Your task to perform on an android device: toggle notification dots Image 0: 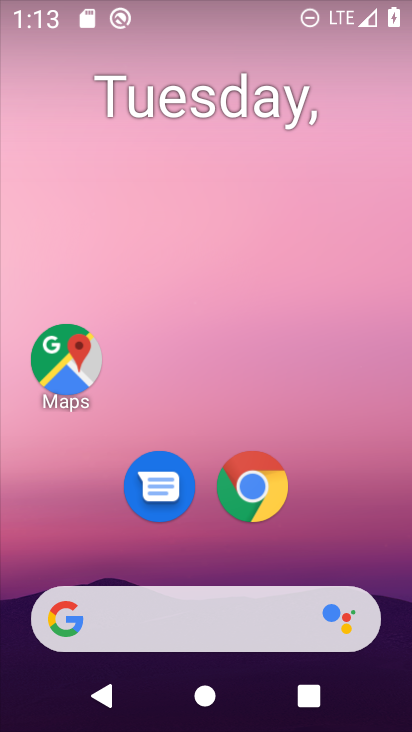
Step 0: drag from (27, 573) to (236, 174)
Your task to perform on an android device: toggle notification dots Image 1: 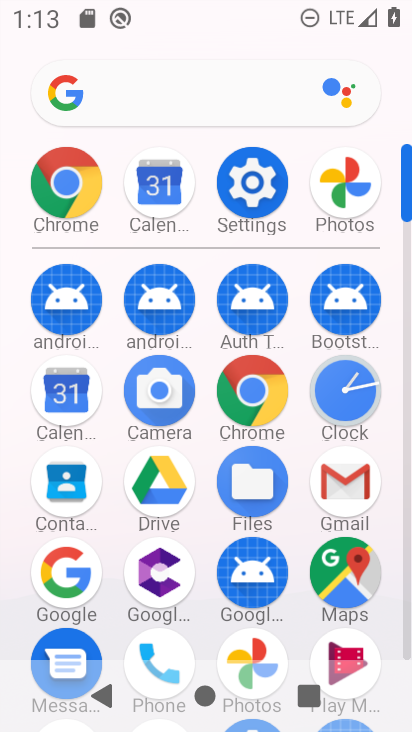
Step 1: click (225, 185)
Your task to perform on an android device: toggle notification dots Image 2: 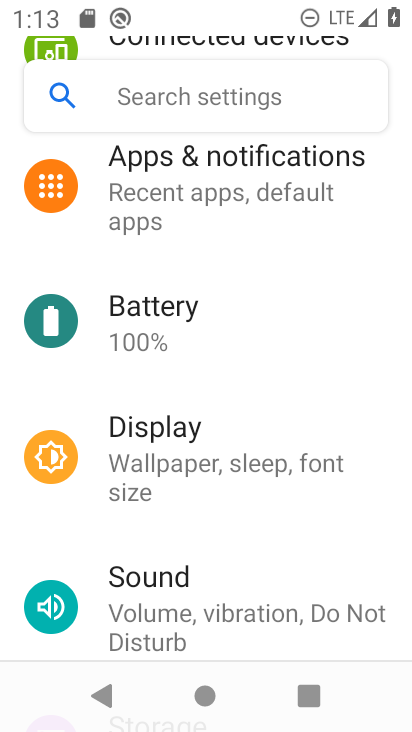
Step 2: click (197, 177)
Your task to perform on an android device: toggle notification dots Image 3: 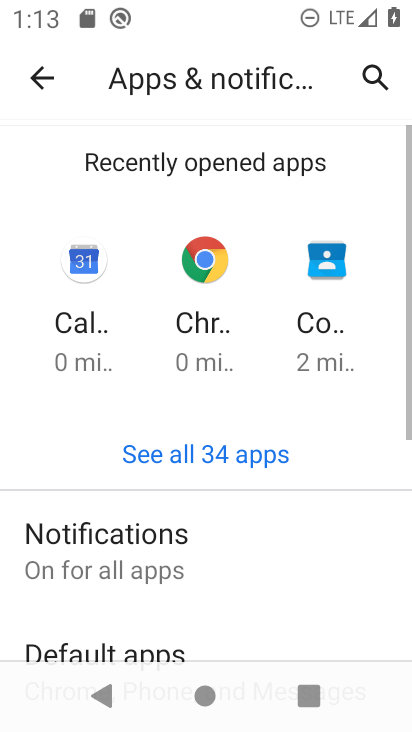
Step 3: click (106, 573)
Your task to perform on an android device: toggle notification dots Image 4: 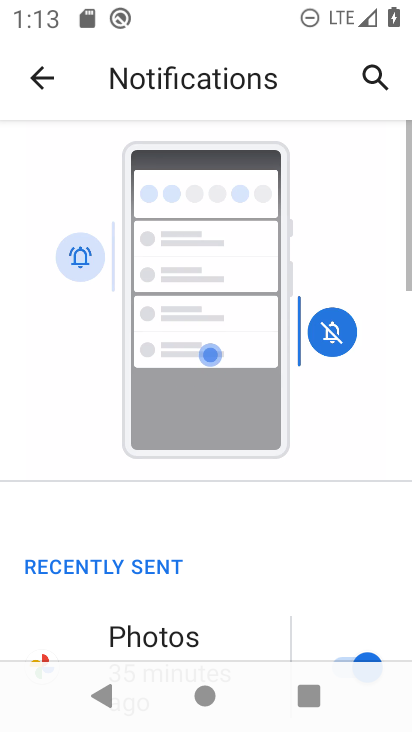
Step 4: drag from (0, 630) to (261, 72)
Your task to perform on an android device: toggle notification dots Image 5: 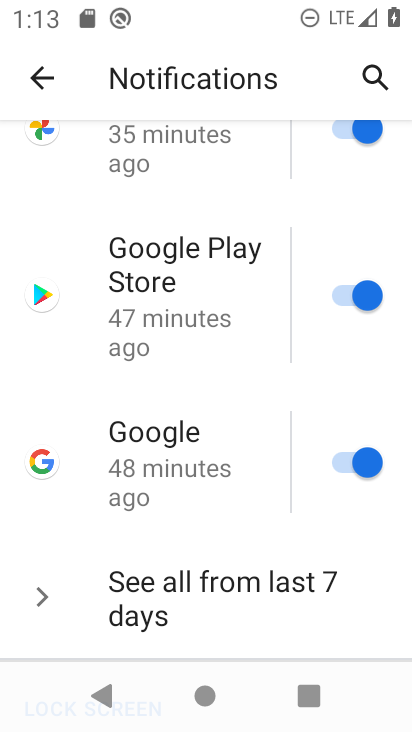
Step 5: drag from (7, 571) to (203, 220)
Your task to perform on an android device: toggle notification dots Image 6: 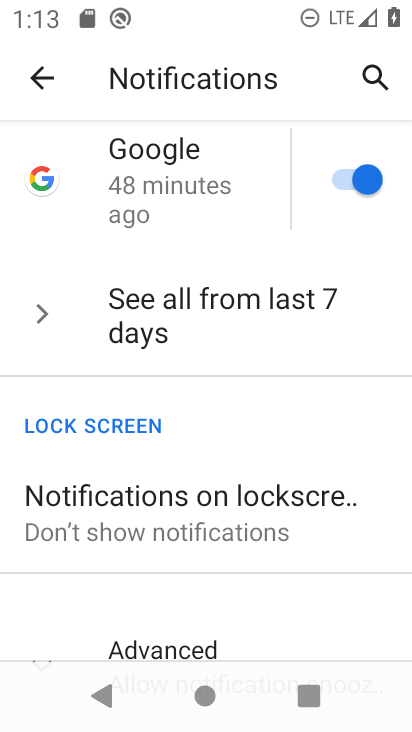
Step 6: drag from (29, 444) to (140, 240)
Your task to perform on an android device: toggle notification dots Image 7: 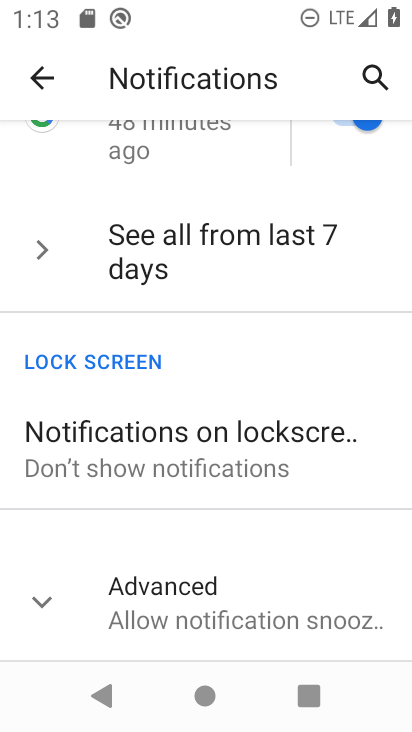
Step 7: drag from (100, 602) to (294, 184)
Your task to perform on an android device: toggle notification dots Image 8: 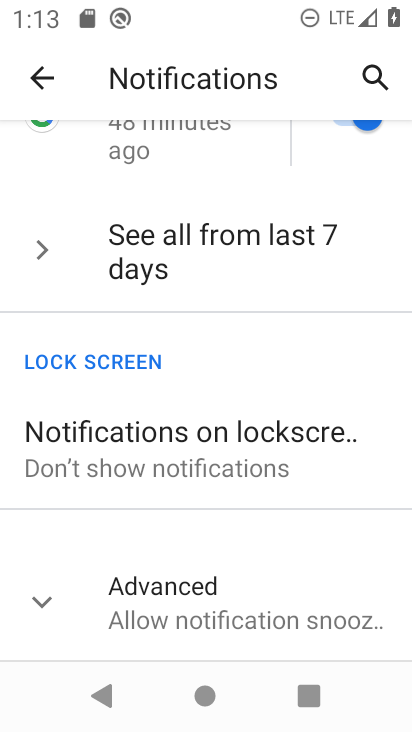
Step 8: click (160, 596)
Your task to perform on an android device: toggle notification dots Image 9: 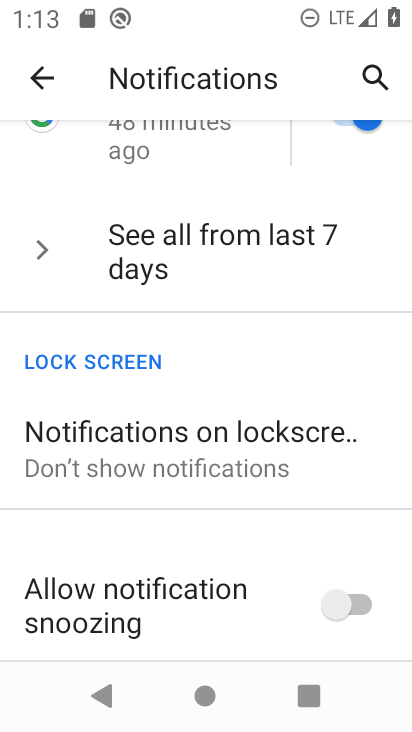
Step 9: drag from (18, 608) to (265, 135)
Your task to perform on an android device: toggle notification dots Image 10: 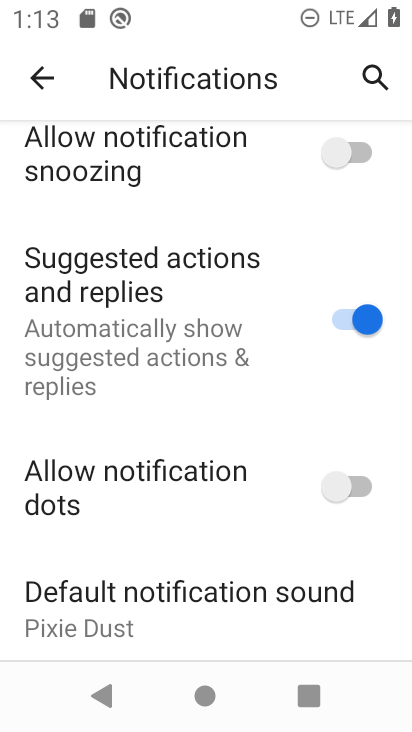
Step 10: click (344, 493)
Your task to perform on an android device: toggle notification dots Image 11: 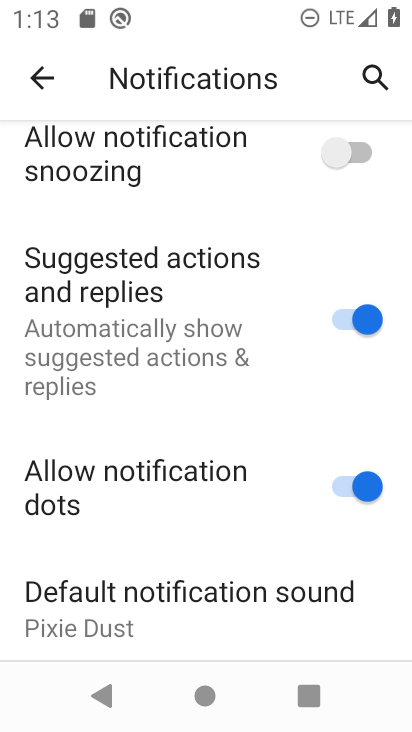
Step 11: task complete